Your task to perform on an android device: Search for pizza restaurants on Maps Image 0: 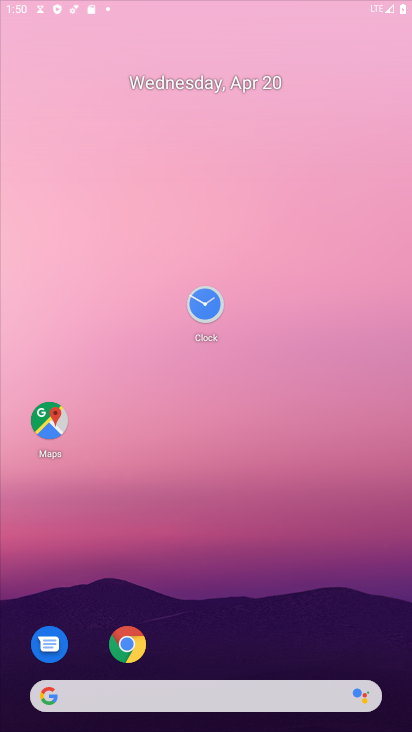
Step 0: click (201, 94)
Your task to perform on an android device: Search for pizza restaurants on Maps Image 1: 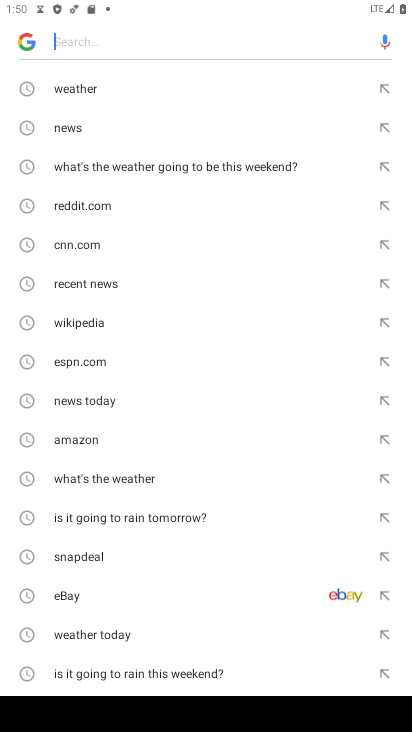
Step 1: press home button
Your task to perform on an android device: Search for pizza restaurants on Maps Image 2: 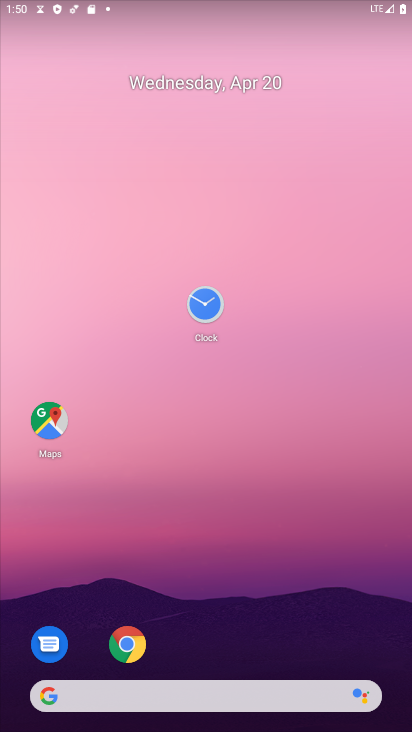
Step 2: drag from (350, 570) to (407, 610)
Your task to perform on an android device: Search for pizza restaurants on Maps Image 3: 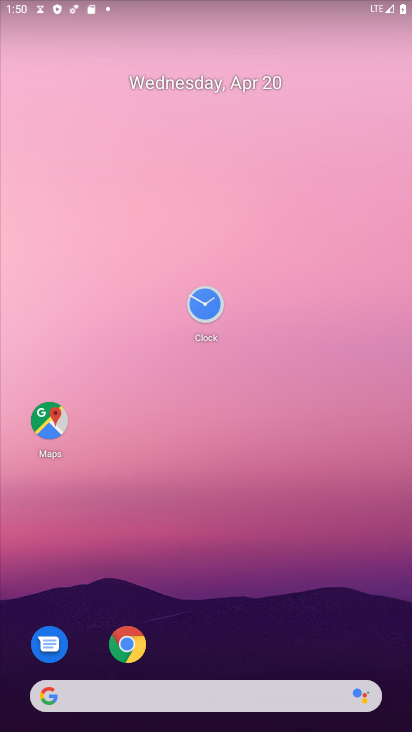
Step 3: drag from (301, 695) to (390, 61)
Your task to perform on an android device: Search for pizza restaurants on Maps Image 4: 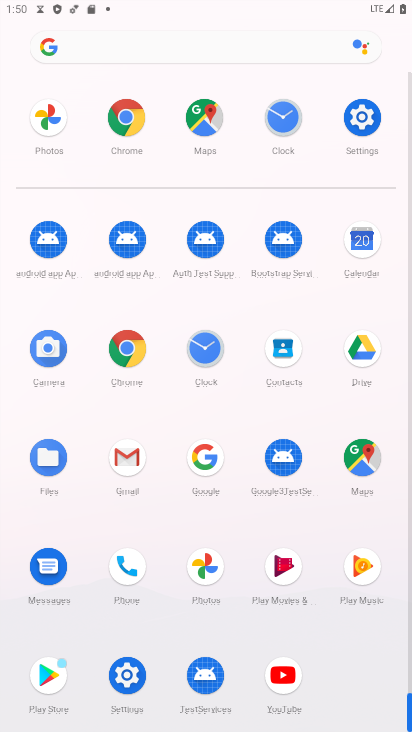
Step 4: click (363, 448)
Your task to perform on an android device: Search for pizza restaurants on Maps Image 5: 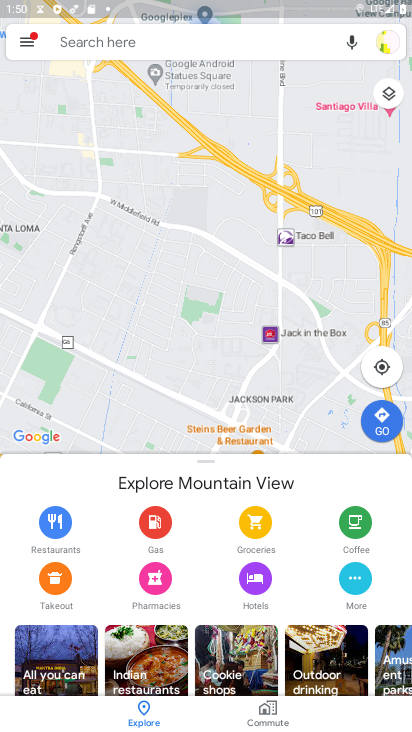
Step 5: click (227, 37)
Your task to perform on an android device: Search for pizza restaurants on Maps Image 6: 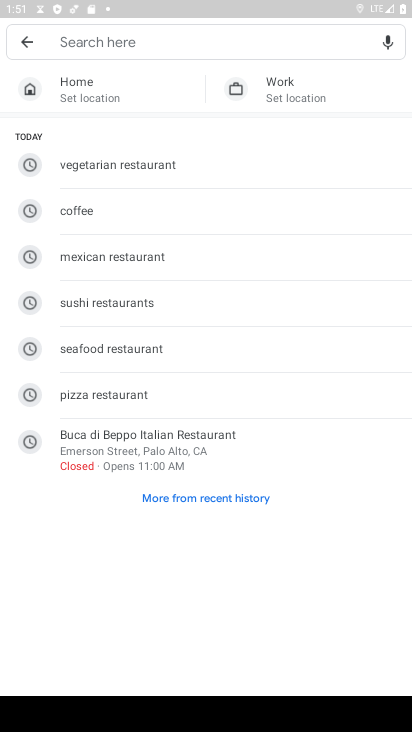
Step 6: type "pizza restaurant"
Your task to perform on an android device: Search for pizza restaurants on Maps Image 7: 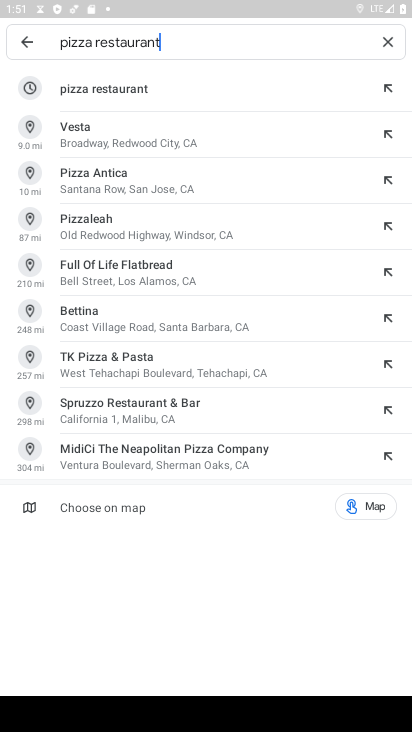
Step 7: click (134, 78)
Your task to perform on an android device: Search for pizza restaurants on Maps Image 8: 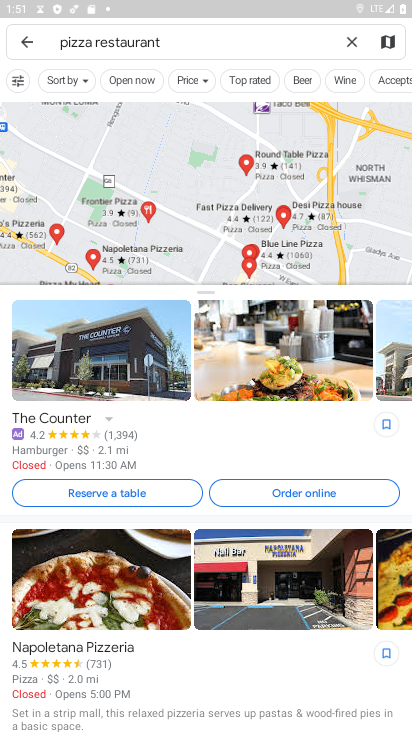
Step 8: task complete